Your task to perform on an android device: What's the weather going to be tomorrow? Image 0: 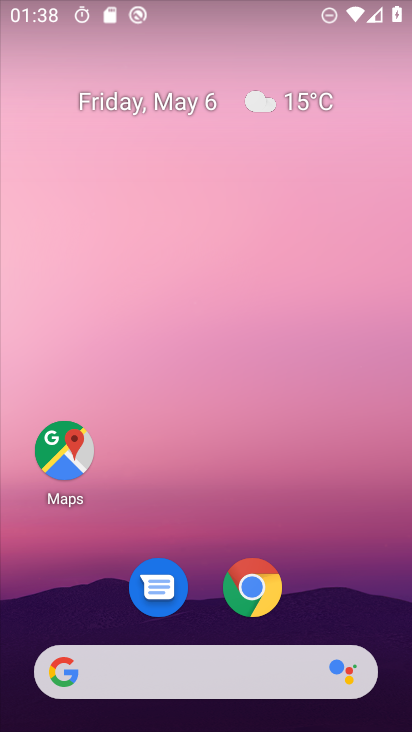
Step 0: drag from (387, 657) to (274, 221)
Your task to perform on an android device: What's the weather going to be tomorrow? Image 1: 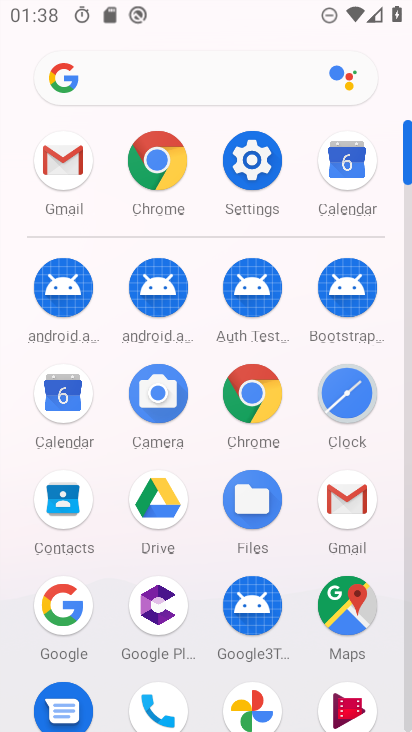
Step 1: click (78, 594)
Your task to perform on an android device: What's the weather going to be tomorrow? Image 2: 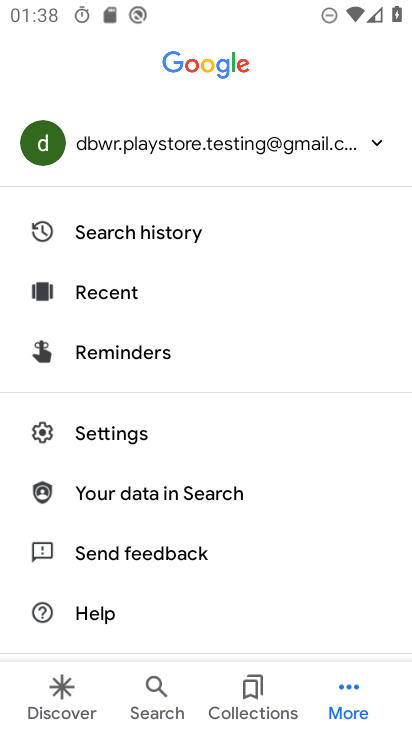
Step 2: press back button
Your task to perform on an android device: What's the weather going to be tomorrow? Image 3: 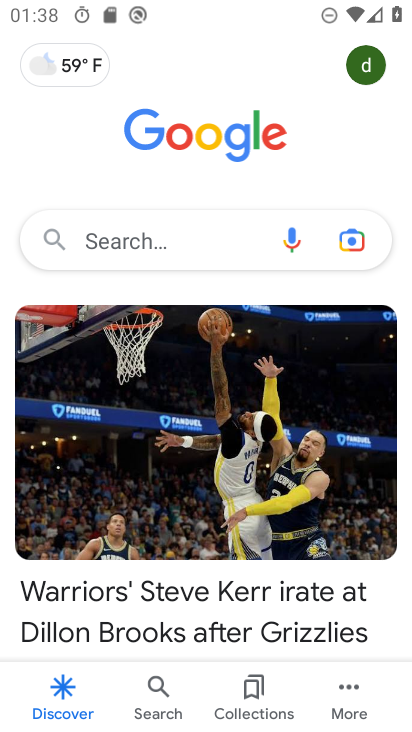
Step 3: click (70, 71)
Your task to perform on an android device: What's the weather going to be tomorrow? Image 4: 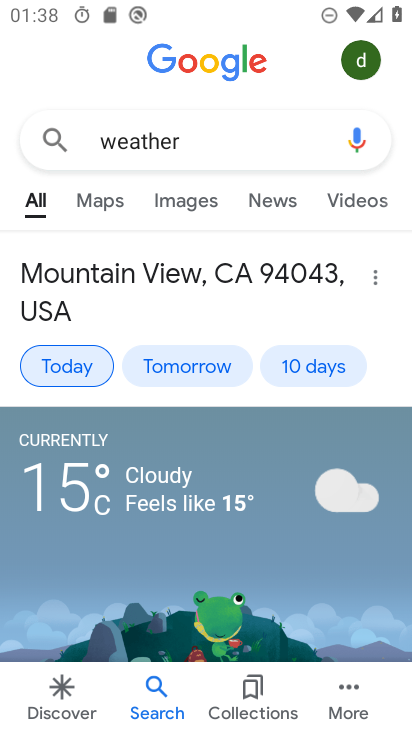
Step 4: click (200, 367)
Your task to perform on an android device: What's the weather going to be tomorrow? Image 5: 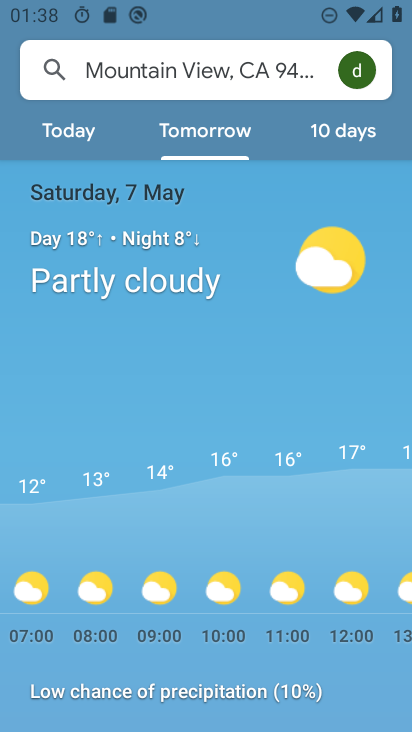
Step 5: task complete